Your task to perform on an android device: remove spam from my inbox in the gmail app Image 0: 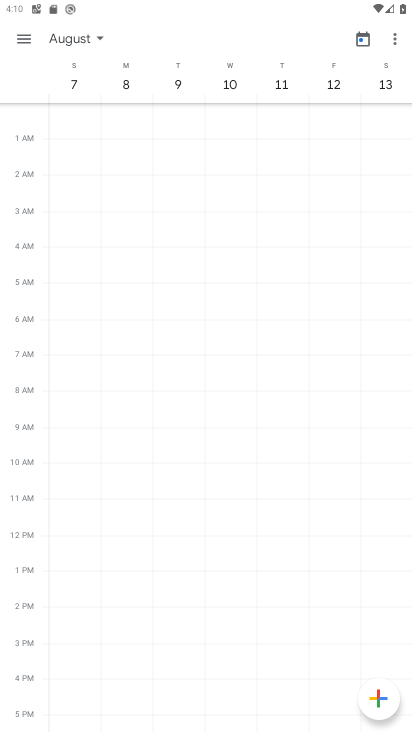
Step 0: press home button
Your task to perform on an android device: remove spam from my inbox in the gmail app Image 1: 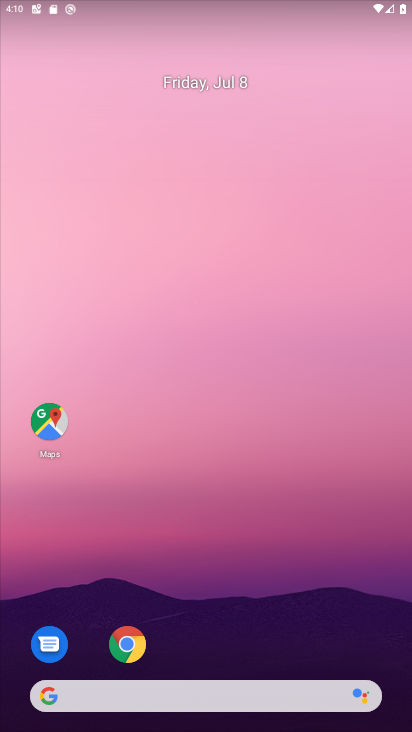
Step 1: drag from (373, 641) to (325, 99)
Your task to perform on an android device: remove spam from my inbox in the gmail app Image 2: 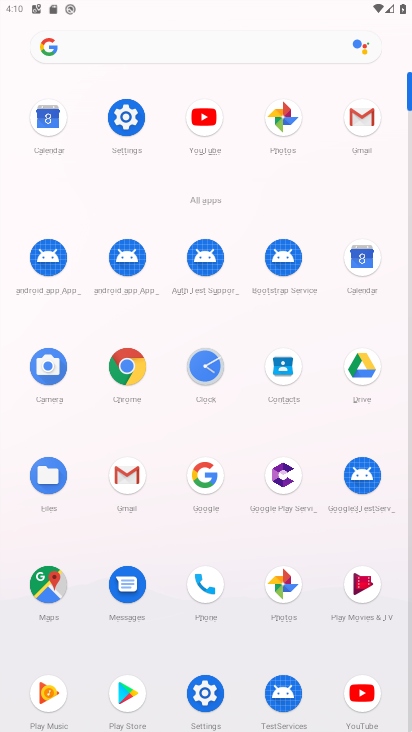
Step 2: click (126, 469)
Your task to perform on an android device: remove spam from my inbox in the gmail app Image 3: 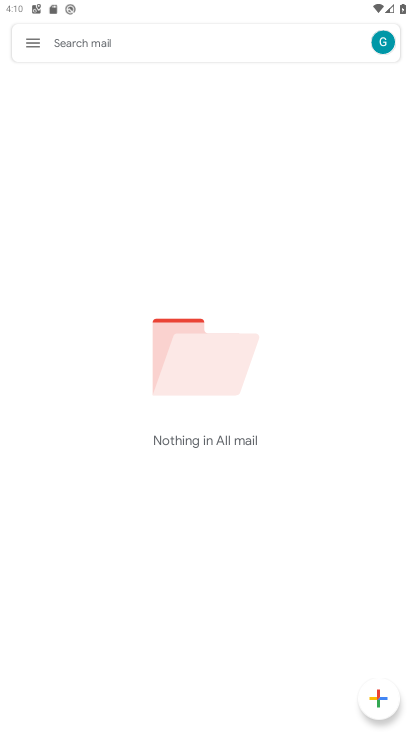
Step 3: click (30, 42)
Your task to perform on an android device: remove spam from my inbox in the gmail app Image 4: 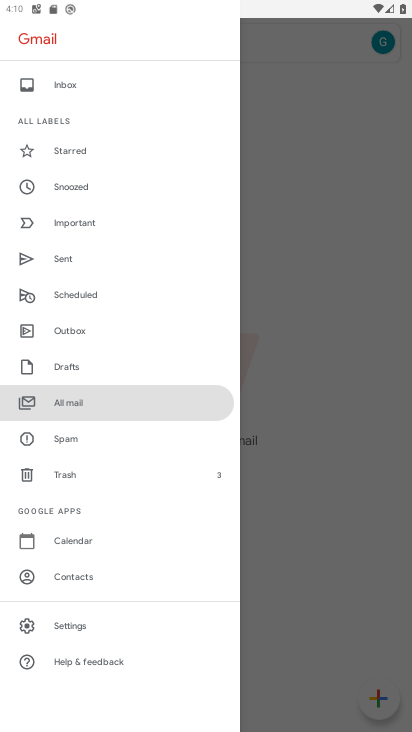
Step 4: click (60, 441)
Your task to perform on an android device: remove spam from my inbox in the gmail app Image 5: 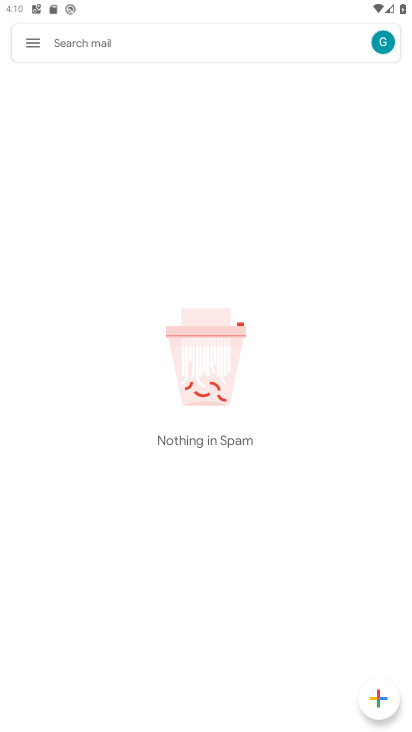
Step 5: task complete